Your task to perform on an android device: turn off notifications settings in the gmail app Image 0: 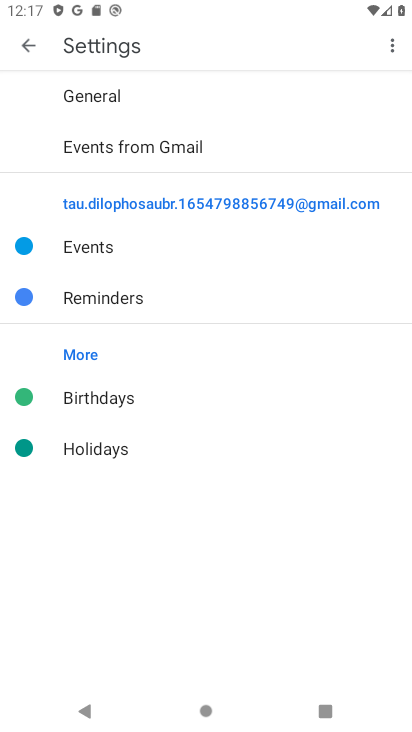
Step 0: press home button
Your task to perform on an android device: turn off notifications settings in the gmail app Image 1: 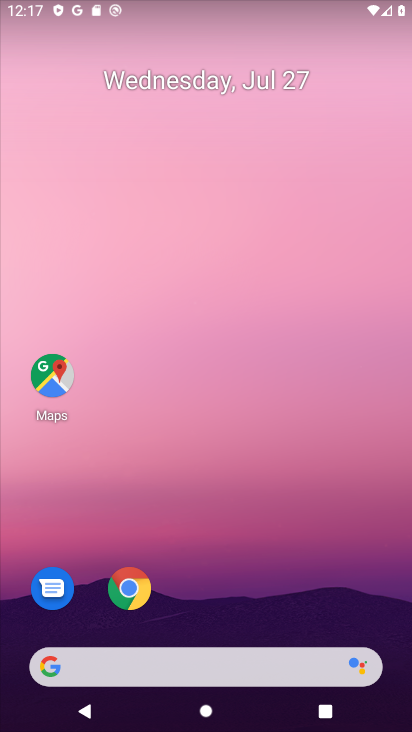
Step 1: drag from (397, 712) to (336, 47)
Your task to perform on an android device: turn off notifications settings in the gmail app Image 2: 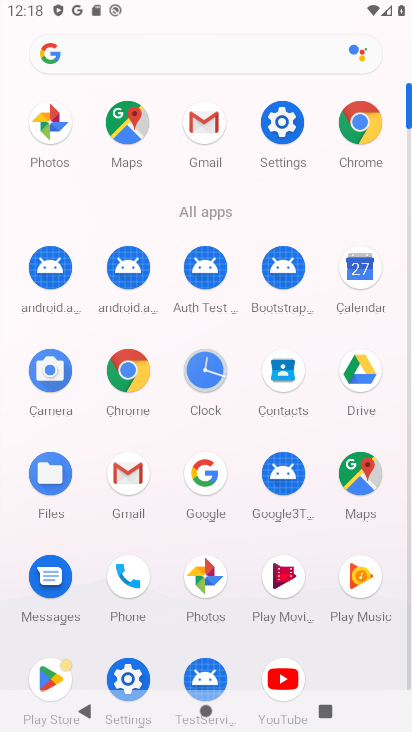
Step 2: click (132, 466)
Your task to perform on an android device: turn off notifications settings in the gmail app Image 3: 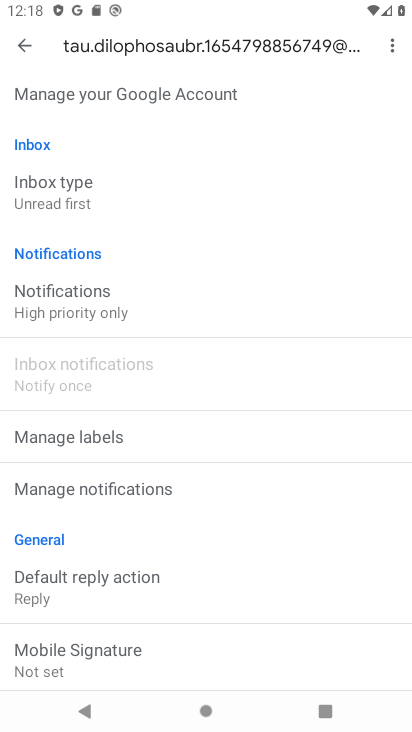
Step 3: click (50, 297)
Your task to perform on an android device: turn off notifications settings in the gmail app Image 4: 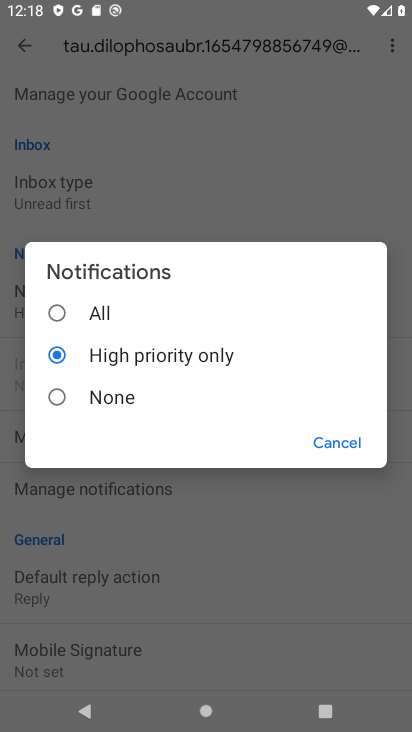
Step 4: click (56, 394)
Your task to perform on an android device: turn off notifications settings in the gmail app Image 5: 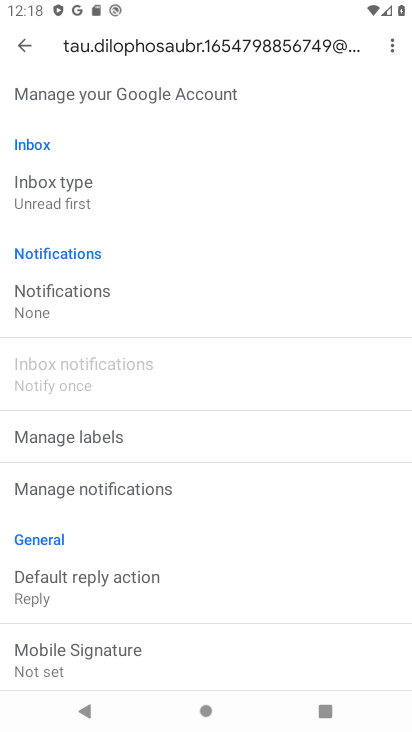
Step 5: task complete